Your task to perform on an android device: Open eBay Image 0: 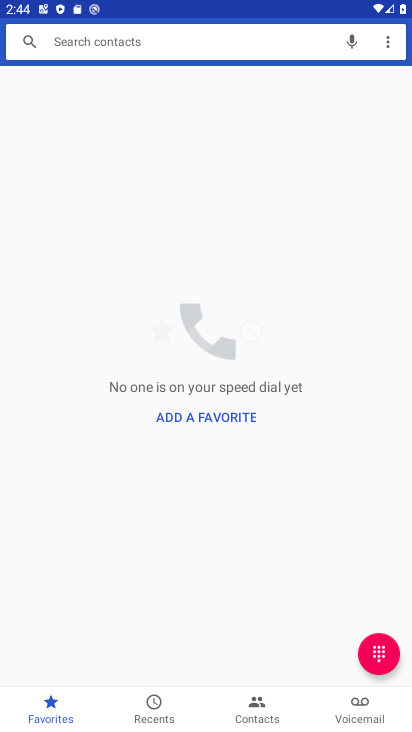
Step 0: press home button
Your task to perform on an android device: Open eBay Image 1: 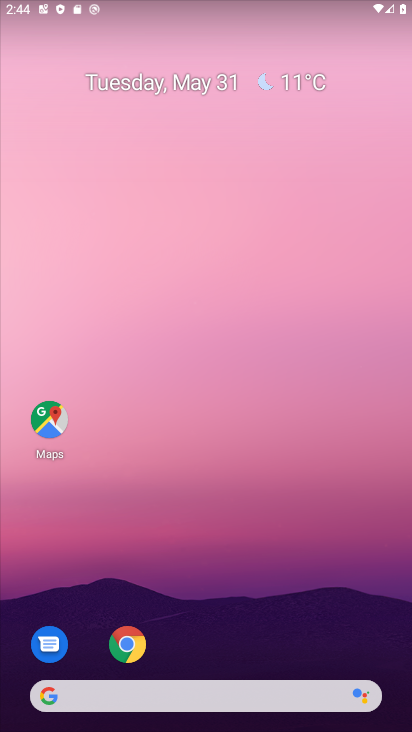
Step 1: click (129, 648)
Your task to perform on an android device: Open eBay Image 2: 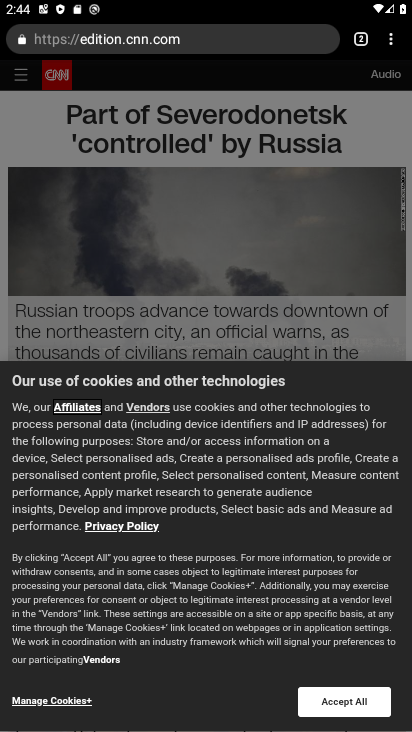
Step 2: click (364, 48)
Your task to perform on an android device: Open eBay Image 3: 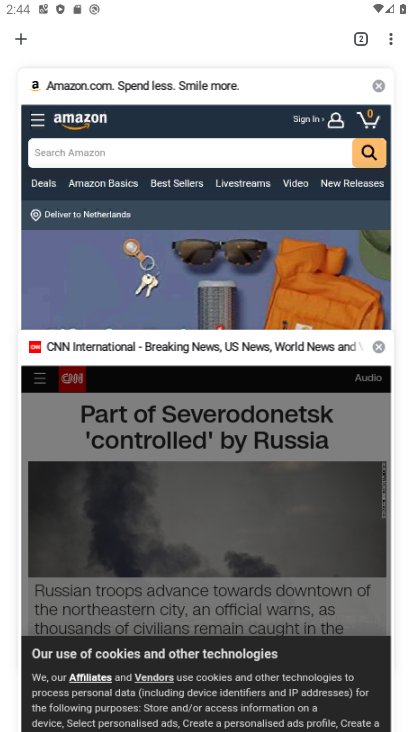
Step 3: click (8, 35)
Your task to perform on an android device: Open eBay Image 4: 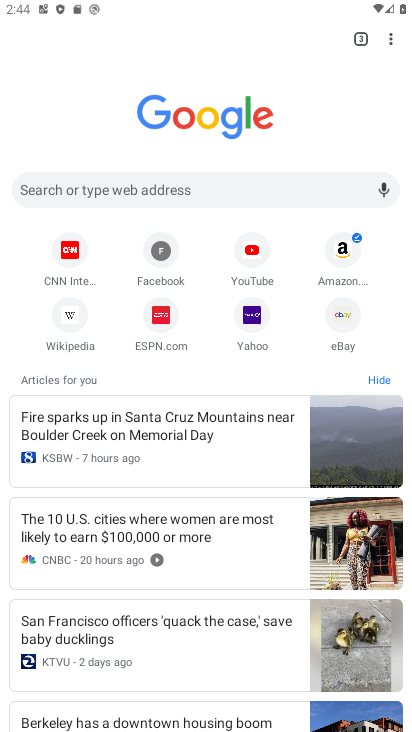
Step 4: click (345, 329)
Your task to perform on an android device: Open eBay Image 5: 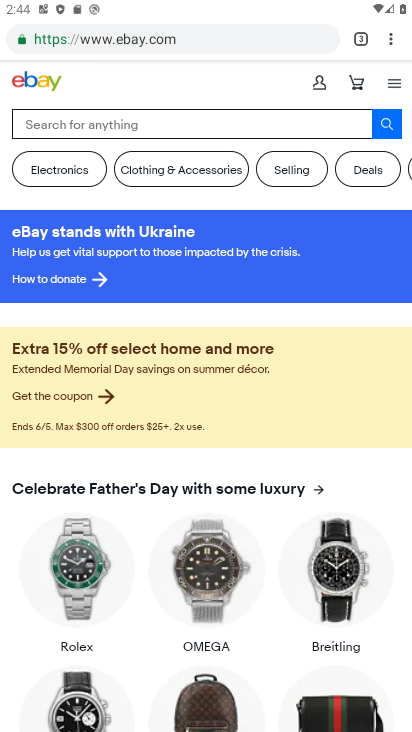
Step 5: task complete